Your task to perform on an android device: turn off airplane mode Image 0: 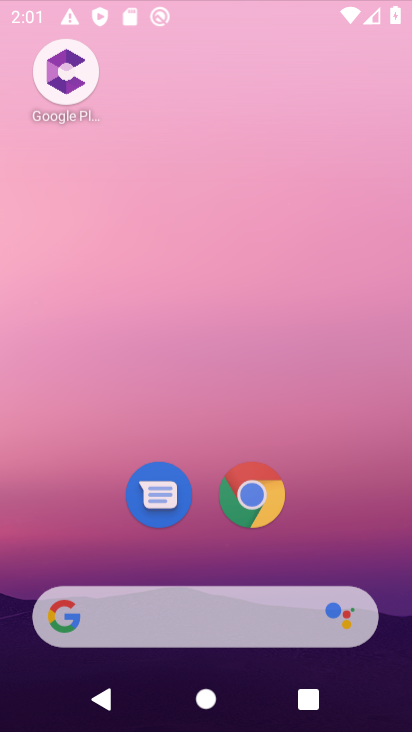
Step 0: press home button
Your task to perform on an android device: turn off airplane mode Image 1: 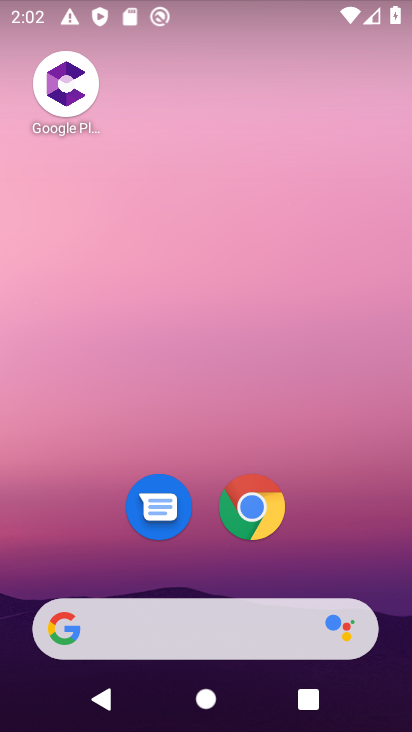
Step 1: drag from (328, 527) to (230, 170)
Your task to perform on an android device: turn off airplane mode Image 2: 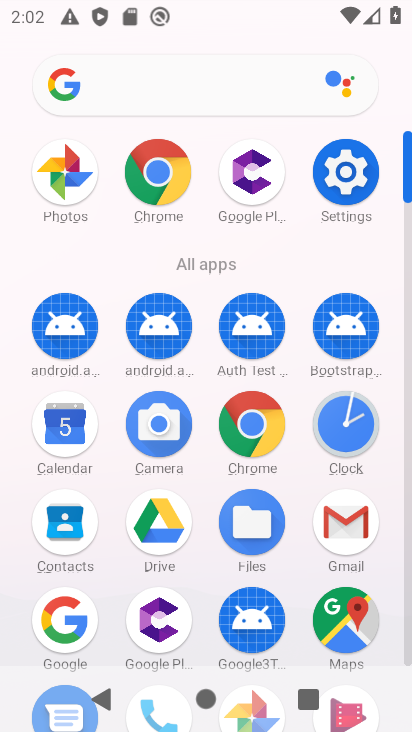
Step 2: click (344, 159)
Your task to perform on an android device: turn off airplane mode Image 3: 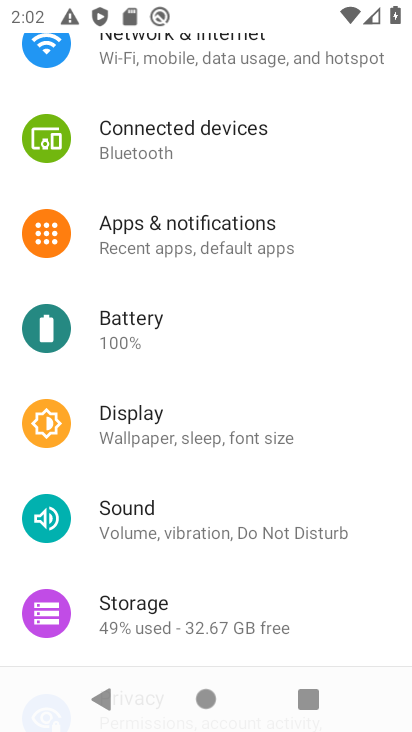
Step 3: click (261, 66)
Your task to perform on an android device: turn off airplane mode Image 4: 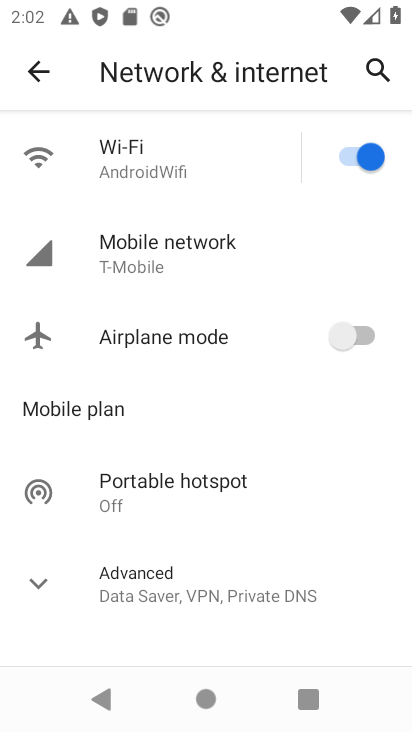
Step 4: task complete